Your task to perform on an android device: turn on the 24-hour format for clock Image 0: 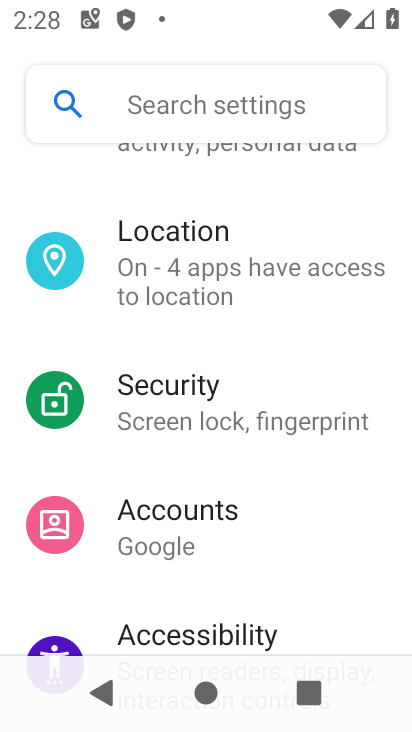
Step 0: press home button
Your task to perform on an android device: turn on the 24-hour format for clock Image 1: 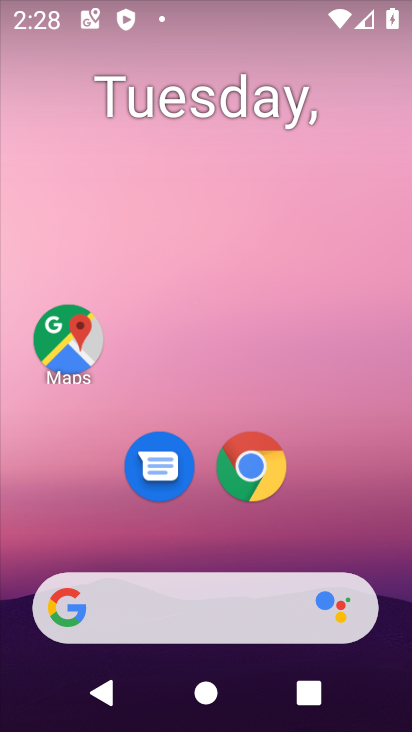
Step 1: drag from (366, 521) to (315, 232)
Your task to perform on an android device: turn on the 24-hour format for clock Image 2: 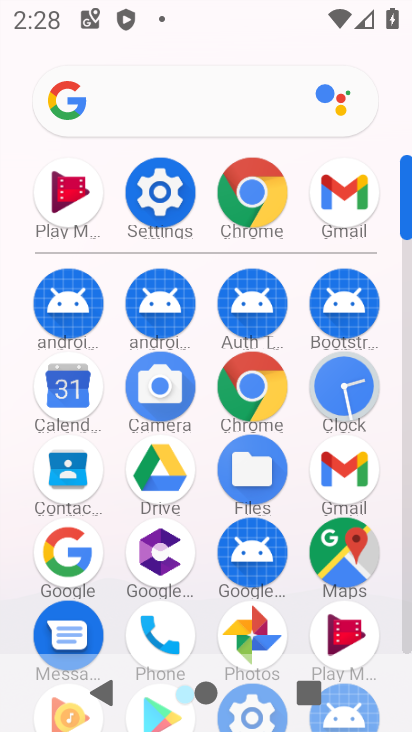
Step 2: click (341, 405)
Your task to perform on an android device: turn on the 24-hour format for clock Image 3: 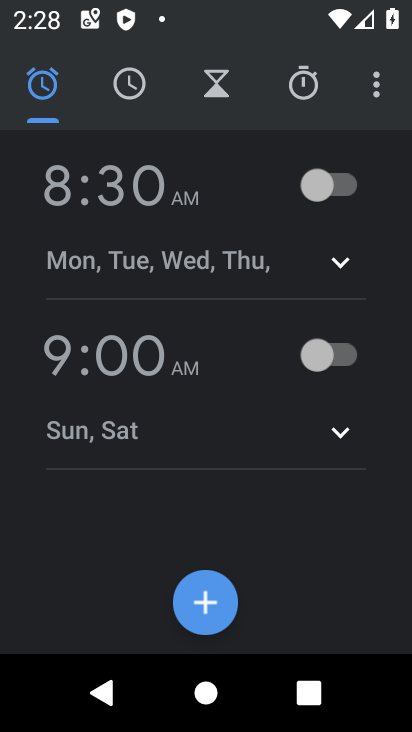
Step 3: task complete